Your task to perform on an android device: Do I have any events today? Image 0: 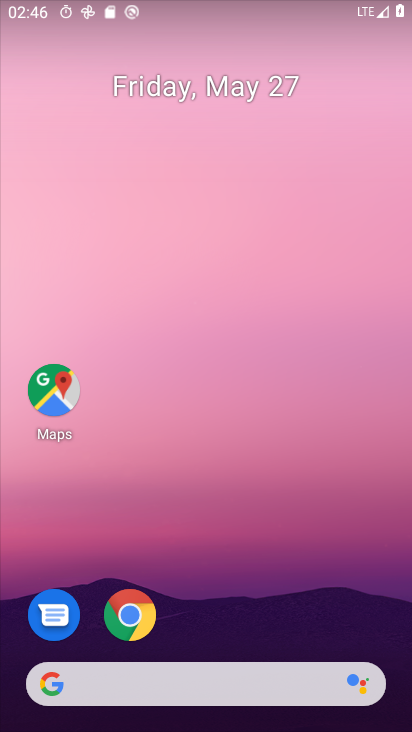
Step 0: drag from (373, 617) to (376, 268)
Your task to perform on an android device: Do I have any events today? Image 1: 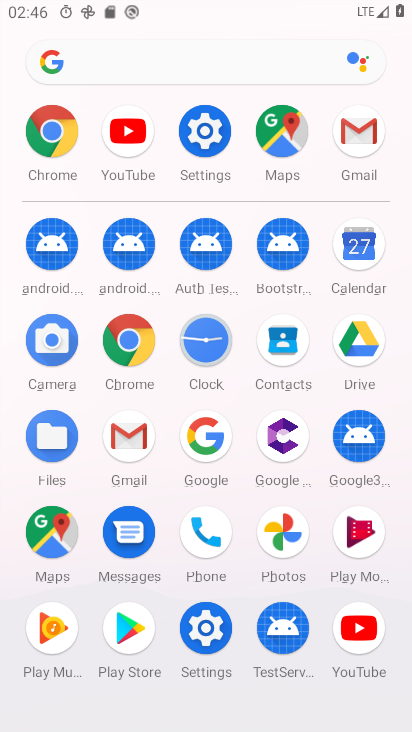
Step 1: click (367, 265)
Your task to perform on an android device: Do I have any events today? Image 2: 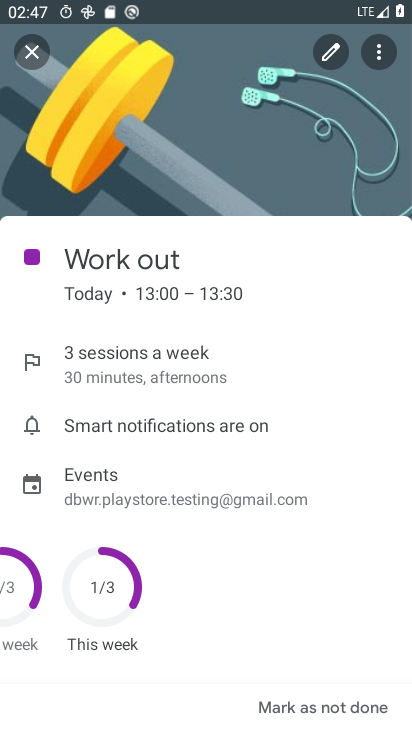
Step 2: click (37, 55)
Your task to perform on an android device: Do I have any events today? Image 3: 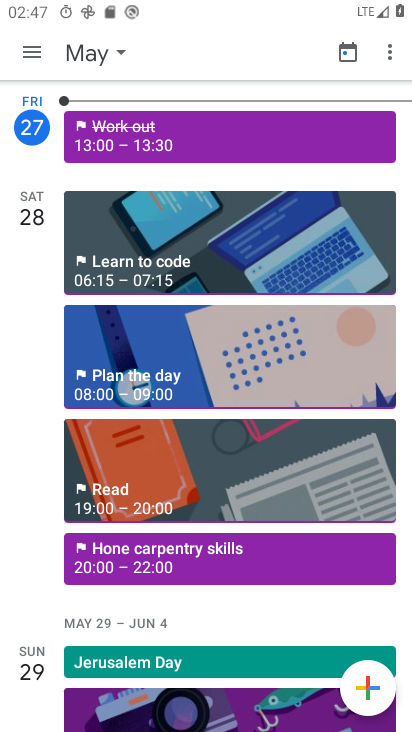
Step 3: click (108, 144)
Your task to perform on an android device: Do I have any events today? Image 4: 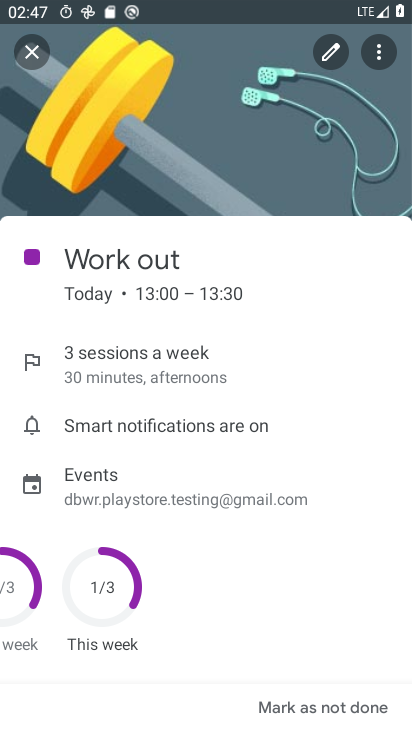
Step 4: task complete